Your task to perform on an android device: Go to privacy settings Image 0: 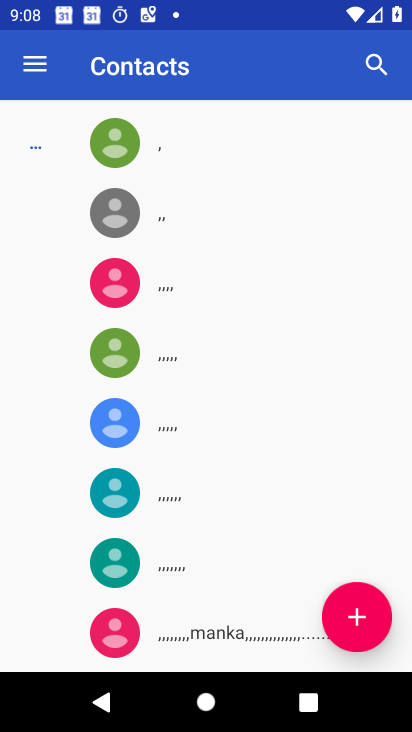
Step 0: press home button
Your task to perform on an android device: Go to privacy settings Image 1: 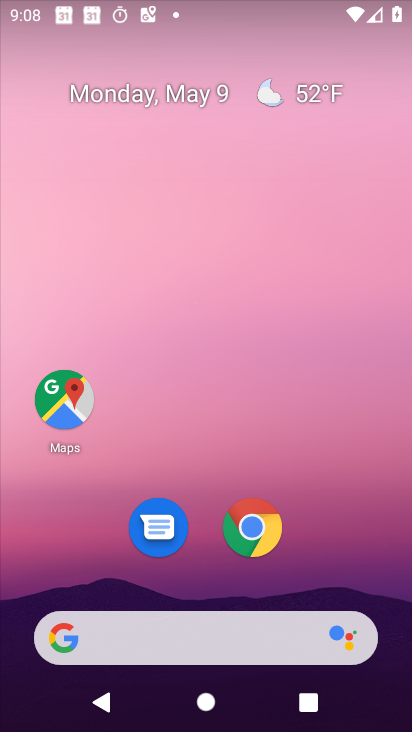
Step 1: drag from (375, 572) to (366, 255)
Your task to perform on an android device: Go to privacy settings Image 2: 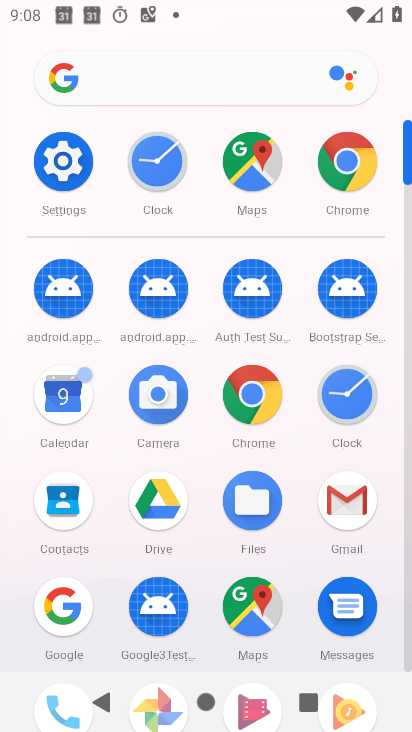
Step 2: click (57, 192)
Your task to perform on an android device: Go to privacy settings Image 3: 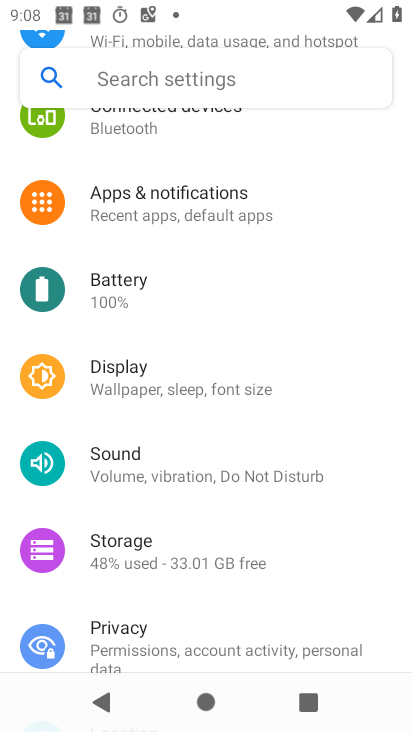
Step 3: click (200, 657)
Your task to perform on an android device: Go to privacy settings Image 4: 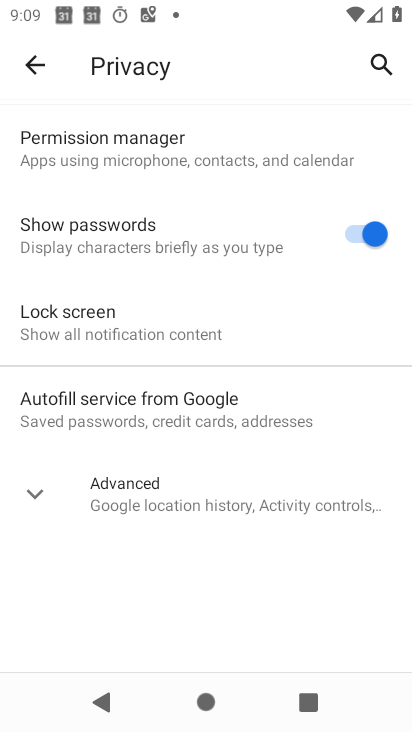
Step 4: task complete